Your task to perform on an android device: What is the news today? Image 0: 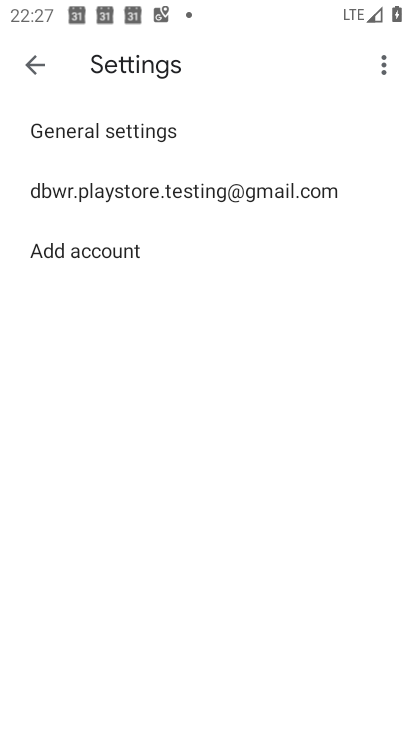
Step 0: press home button
Your task to perform on an android device: What is the news today? Image 1: 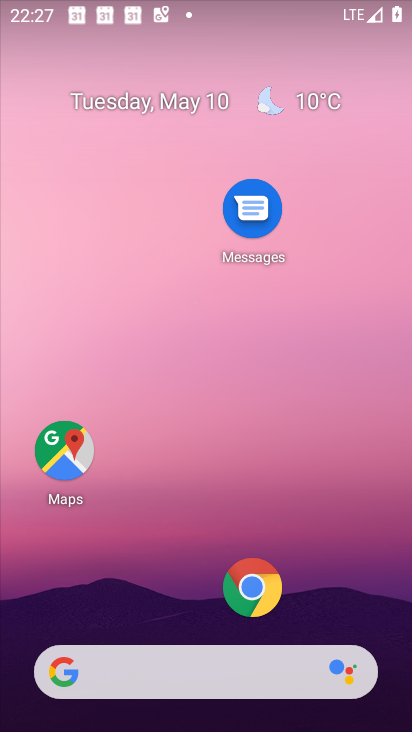
Step 1: click (180, 665)
Your task to perform on an android device: What is the news today? Image 2: 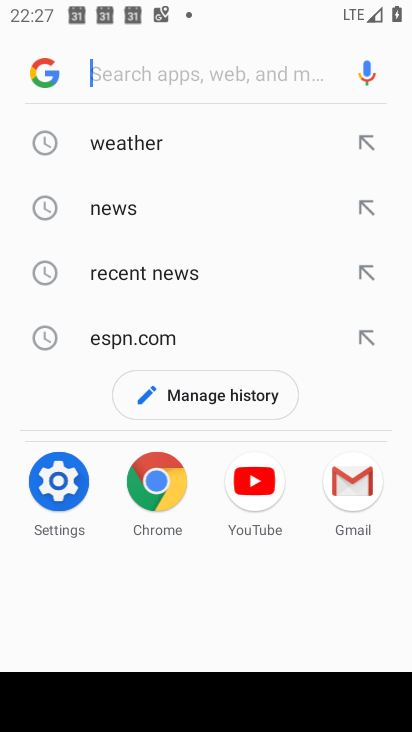
Step 2: click (131, 213)
Your task to perform on an android device: What is the news today? Image 3: 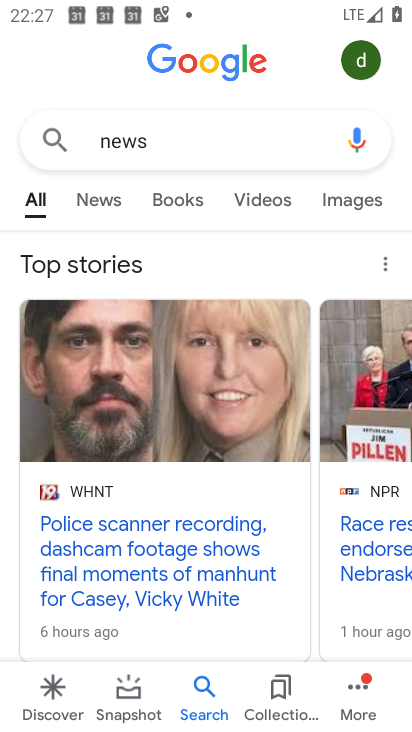
Step 3: task complete